Your task to perform on an android device: Open the Play Movies app and select the watchlist tab. Image 0: 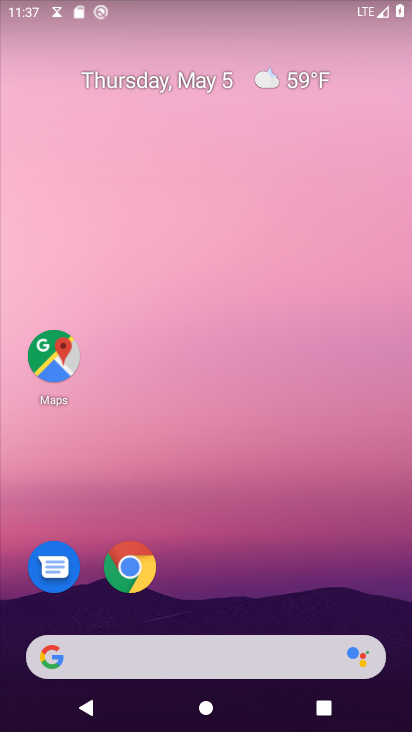
Step 0: drag from (334, 603) to (347, 7)
Your task to perform on an android device: Open the Play Movies app and select the watchlist tab. Image 1: 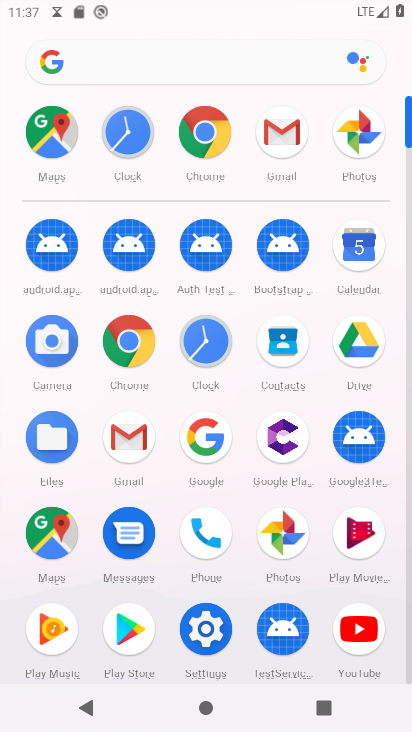
Step 1: click (363, 539)
Your task to perform on an android device: Open the Play Movies app and select the watchlist tab. Image 2: 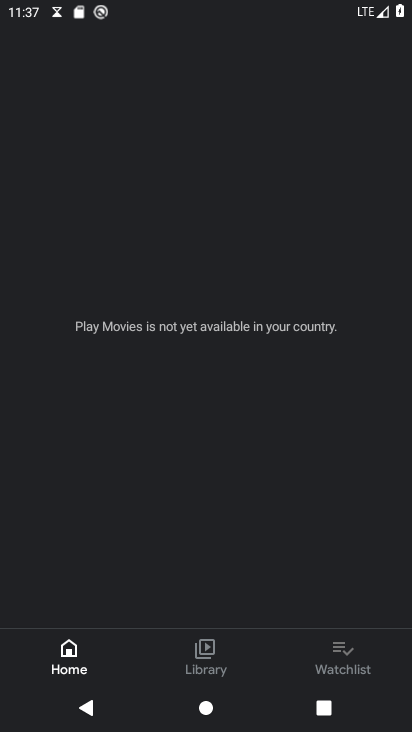
Step 2: click (344, 661)
Your task to perform on an android device: Open the Play Movies app and select the watchlist tab. Image 3: 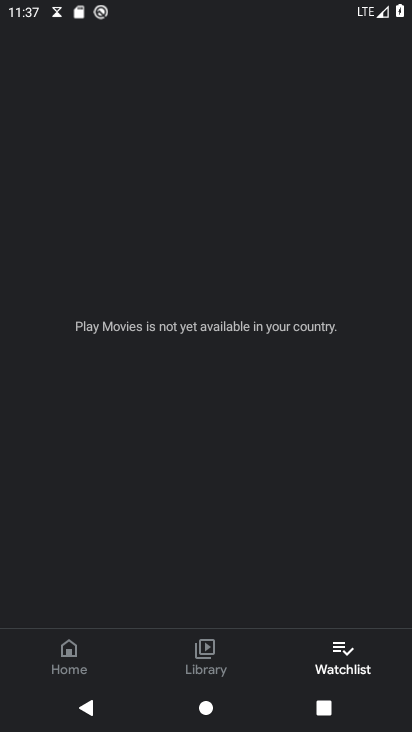
Step 3: task complete